Your task to perform on an android device: remove spam from my inbox in the gmail app Image 0: 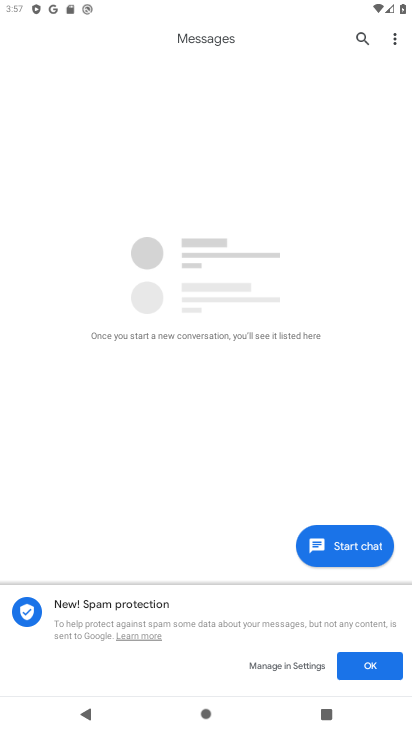
Step 0: press home button
Your task to perform on an android device: remove spam from my inbox in the gmail app Image 1: 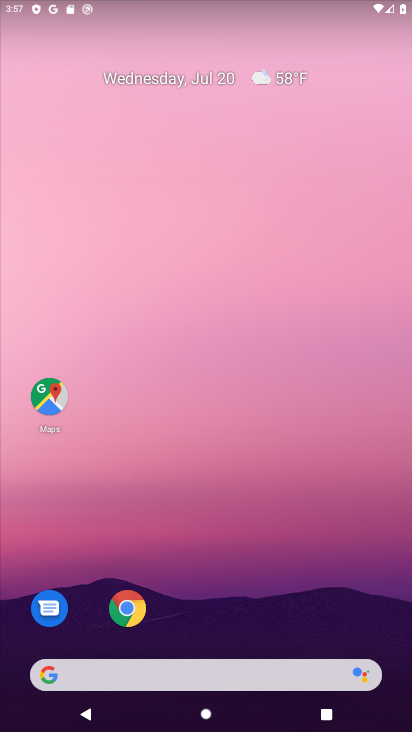
Step 1: drag from (203, 547) to (219, 27)
Your task to perform on an android device: remove spam from my inbox in the gmail app Image 2: 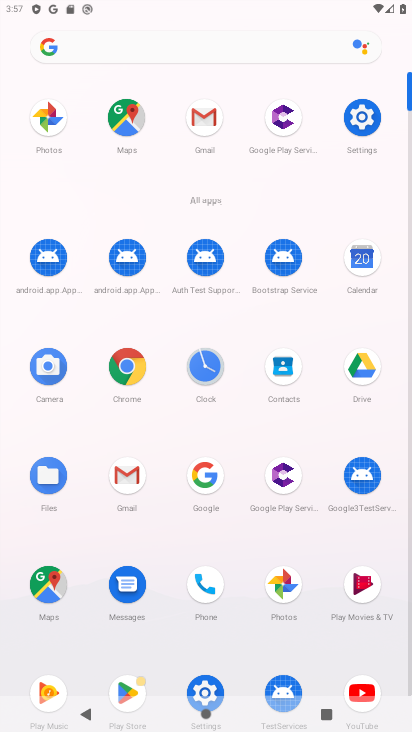
Step 2: click (130, 492)
Your task to perform on an android device: remove spam from my inbox in the gmail app Image 3: 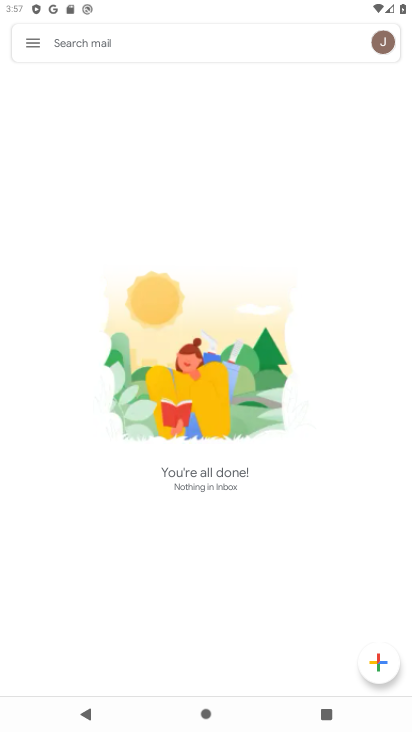
Step 3: click (38, 41)
Your task to perform on an android device: remove spam from my inbox in the gmail app Image 4: 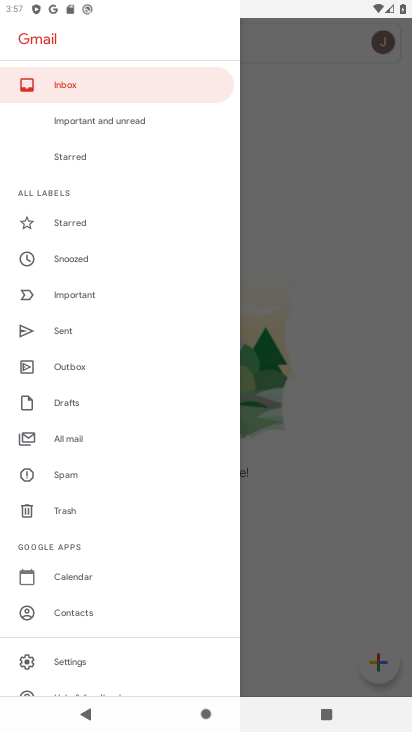
Step 4: click (68, 477)
Your task to perform on an android device: remove spam from my inbox in the gmail app Image 5: 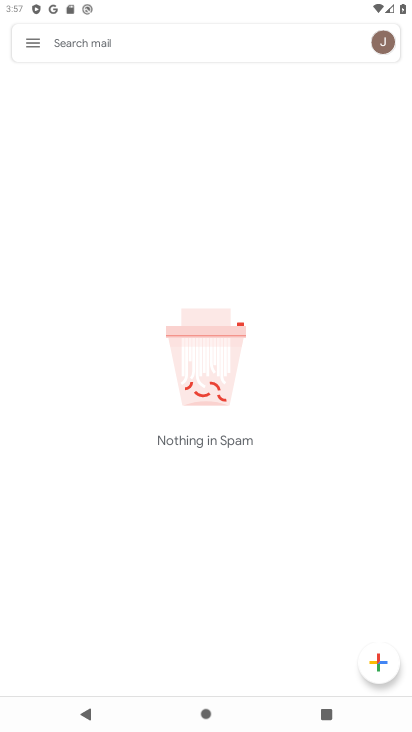
Step 5: task complete